Your task to perform on an android device: turn on notifications settings in the gmail app Image 0: 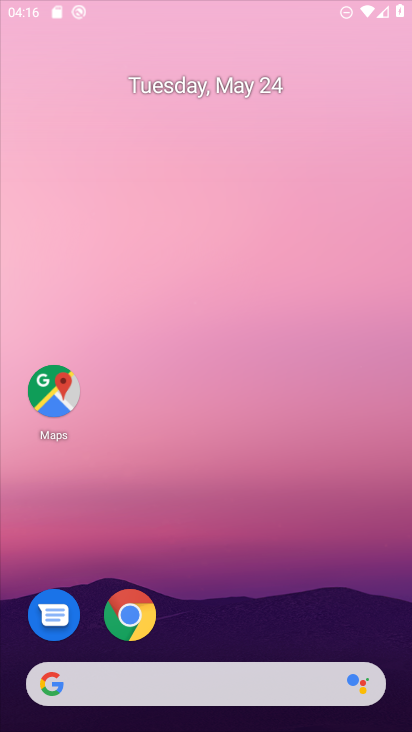
Step 0: click (218, 53)
Your task to perform on an android device: turn on notifications settings in the gmail app Image 1: 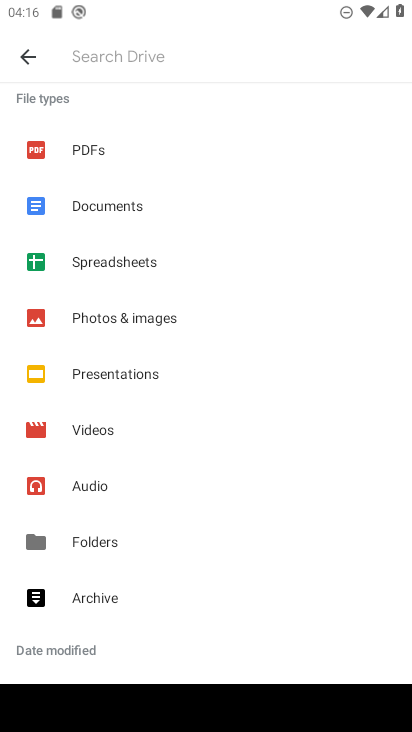
Step 1: press back button
Your task to perform on an android device: turn on notifications settings in the gmail app Image 2: 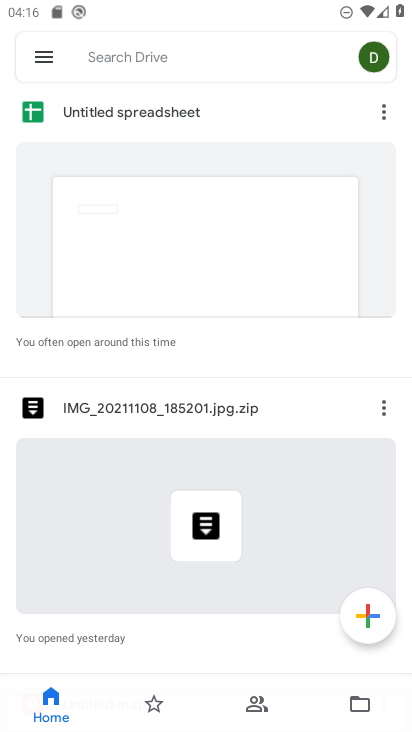
Step 2: press home button
Your task to perform on an android device: turn on notifications settings in the gmail app Image 3: 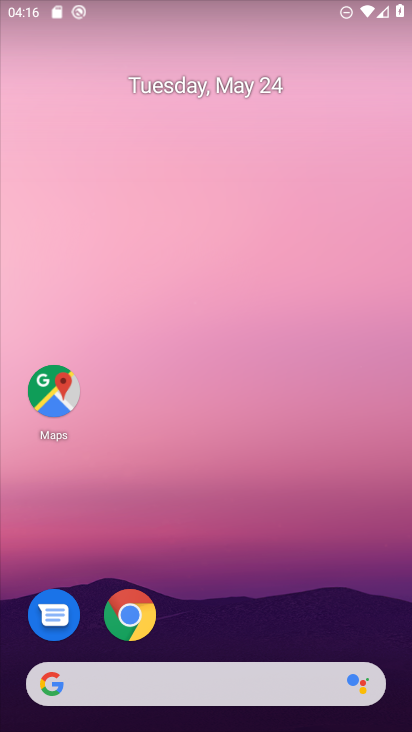
Step 3: drag from (234, 523) to (171, 26)
Your task to perform on an android device: turn on notifications settings in the gmail app Image 4: 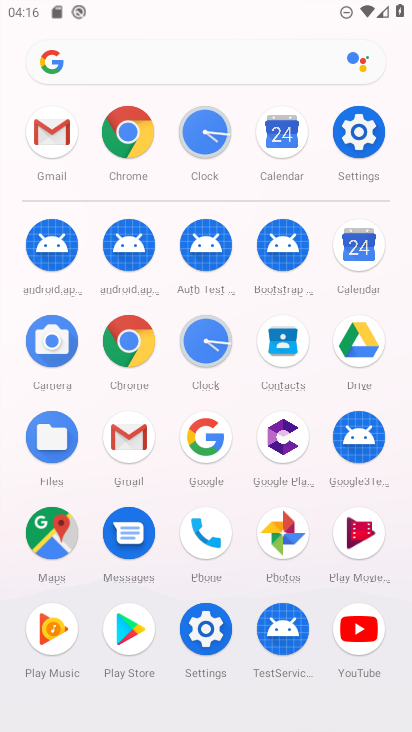
Step 4: click (123, 122)
Your task to perform on an android device: turn on notifications settings in the gmail app Image 5: 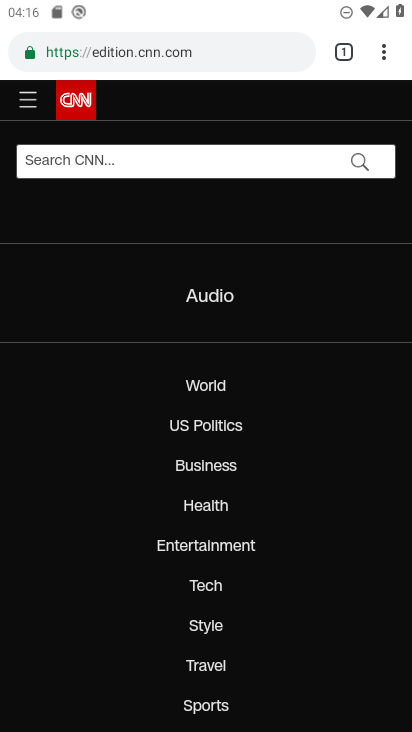
Step 5: press back button
Your task to perform on an android device: turn on notifications settings in the gmail app Image 6: 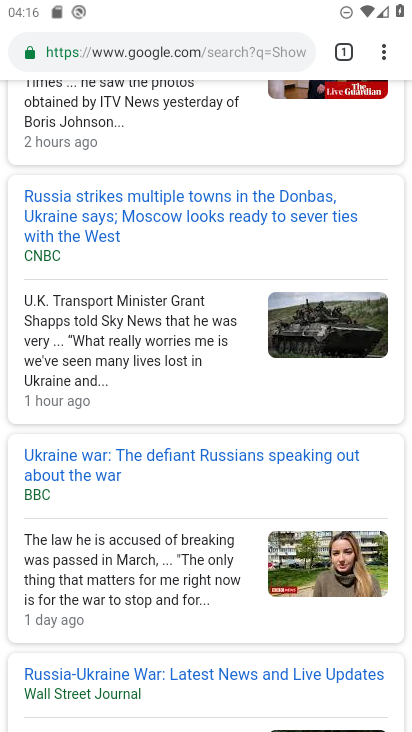
Step 6: press back button
Your task to perform on an android device: turn on notifications settings in the gmail app Image 7: 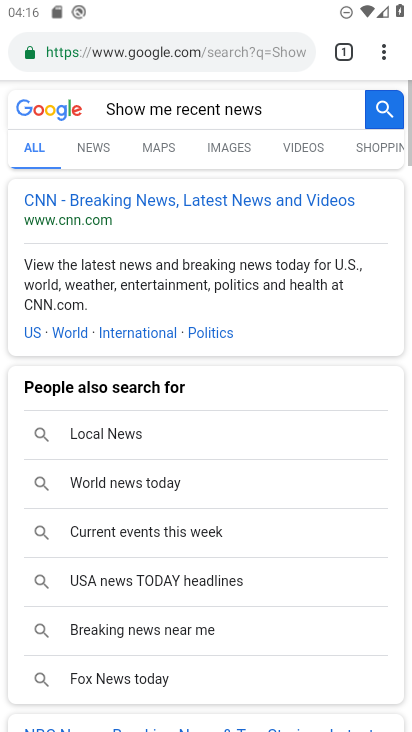
Step 7: press home button
Your task to perform on an android device: turn on notifications settings in the gmail app Image 8: 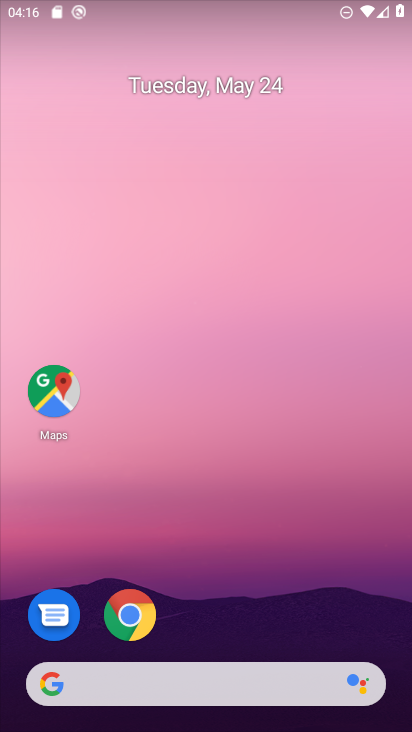
Step 8: drag from (238, 615) to (209, 36)
Your task to perform on an android device: turn on notifications settings in the gmail app Image 9: 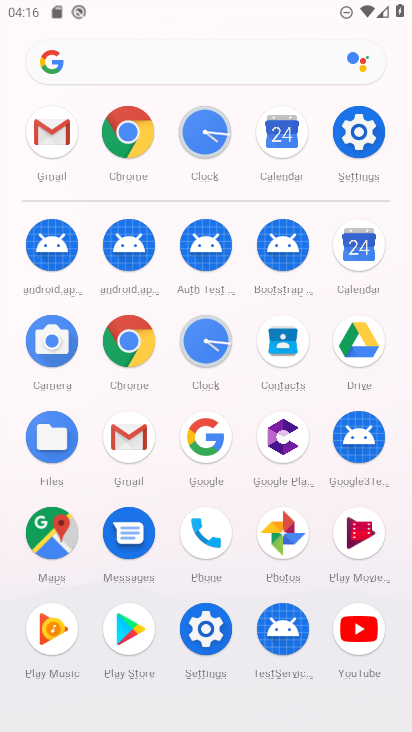
Step 9: click (130, 436)
Your task to perform on an android device: turn on notifications settings in the gmail app Image 10: 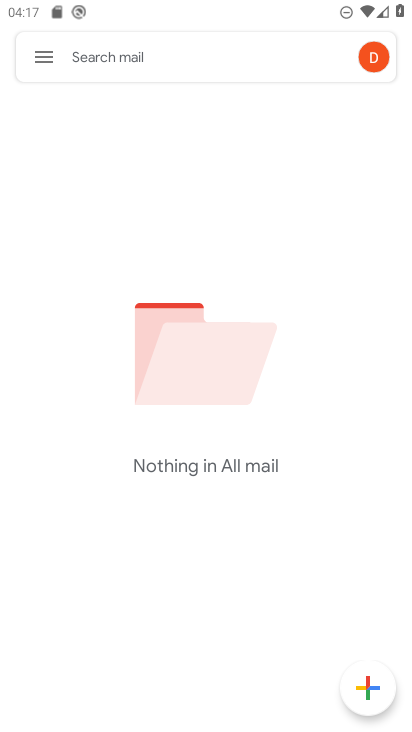
Step 10: click (46, 50)
Your task to perform on an android device: turn on notifications settings in the gmail app Image 11: 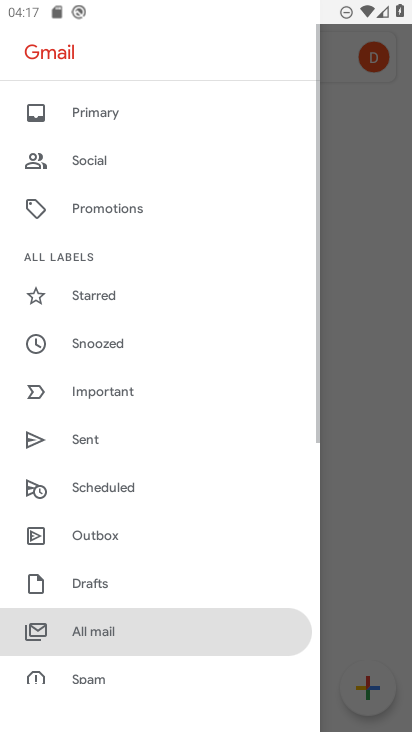
Step 11: drag from (149, 539) to (175, 96)
Your task to perform on an android device: turn on notifications settings in the gmail app Image 12: 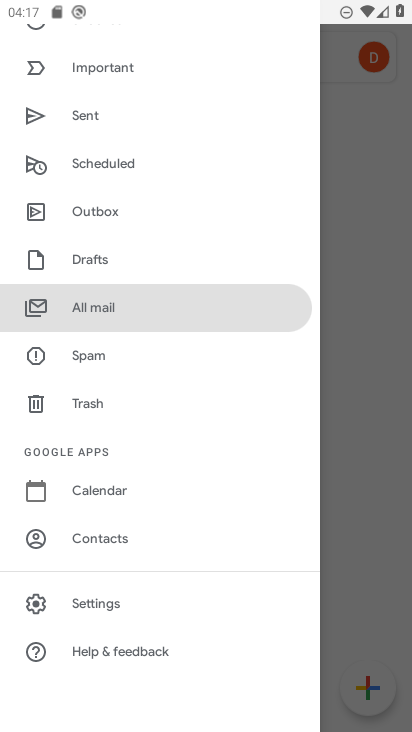
Step 12: click (96, 602)
Your task to perform on an android device: turn on notifications settings in the gmail app Image 13: 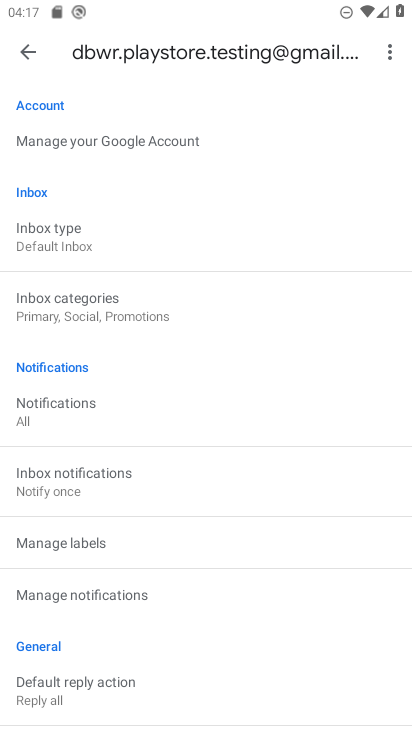
Step 13: click (105, 588)
Your task to perform on an android device: turn on notifications settings in the gmail app Image 14: 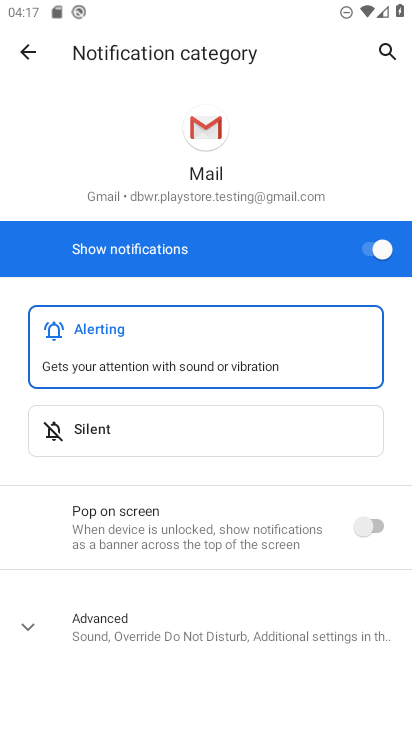
Step 14: task complete